Your task to perform on an android device: Go to eBay Image 0: 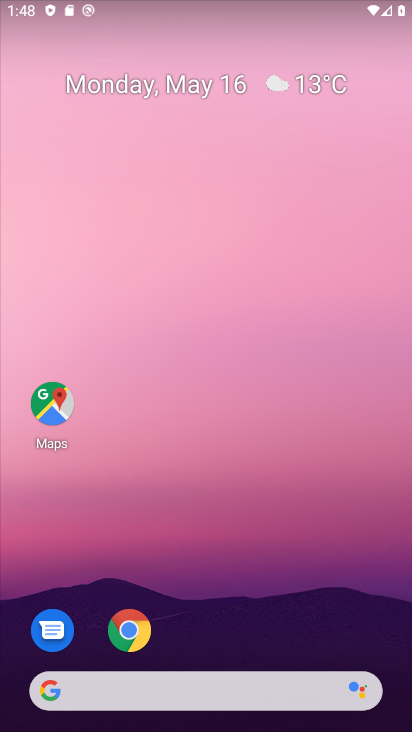
Step 0: click (133, 629)
Your task to perform on an android device: Go to eBay Image 1: 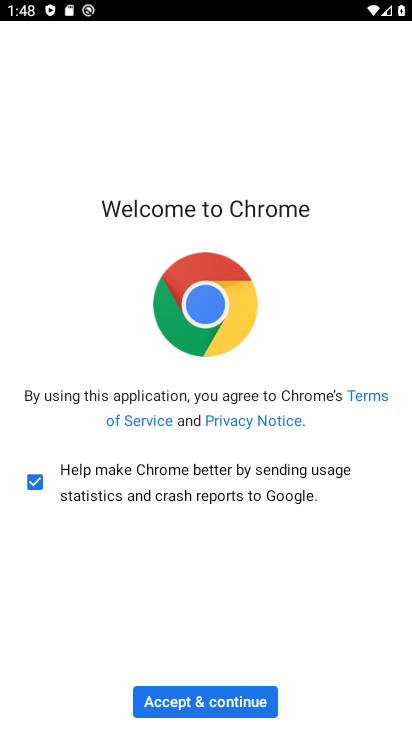
Step 1: click (189, 701)
Your task to perform on an android device: Go to eBay Image 2: 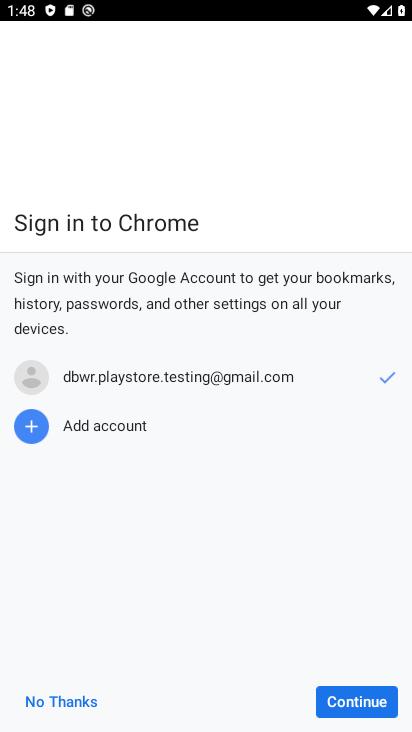
Step 2: click (370, 704)
Your task to perform on an android device: Go to eBay Image 3: 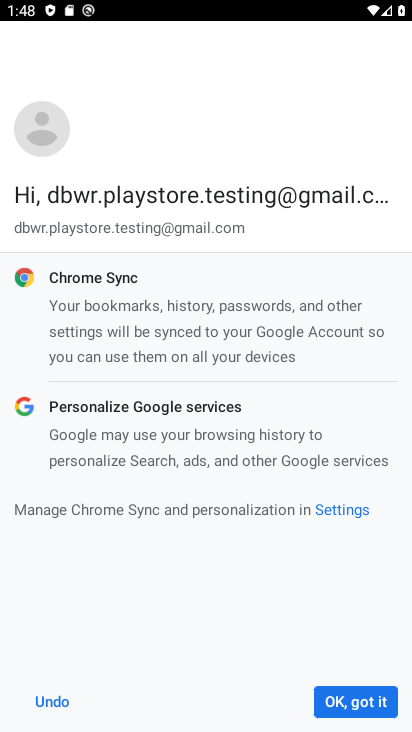
Step 3: click (372, 703)
Your task to perform on an android device: Go to eBay Image 4: 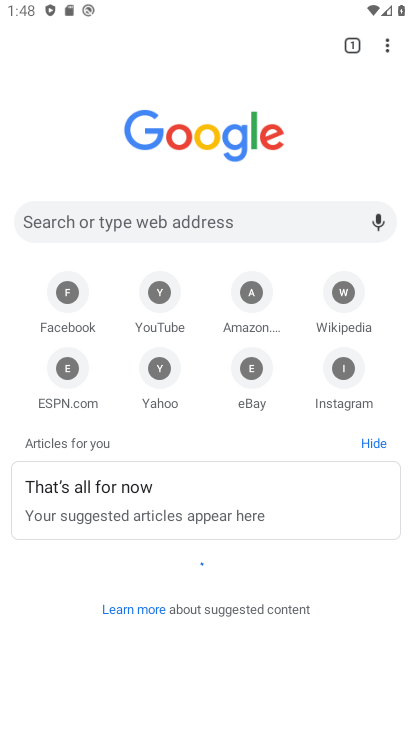
Step 4: click (155, 221)
Your task to perform on an android device: Go to eBay Image 5: 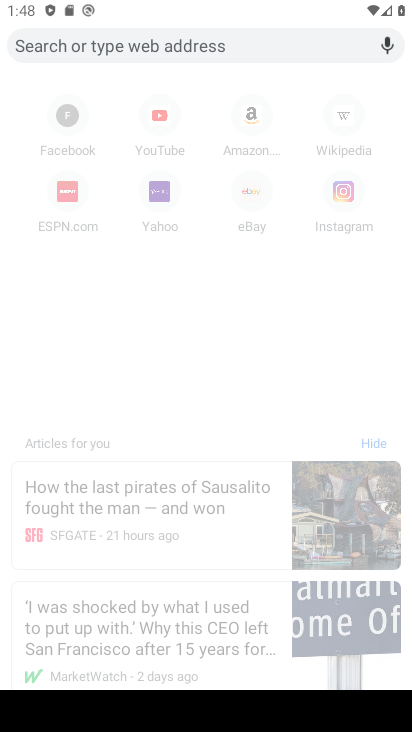
Step 5: type "ebay"
Your task to perform on an android device: Go to eBay Image 6: 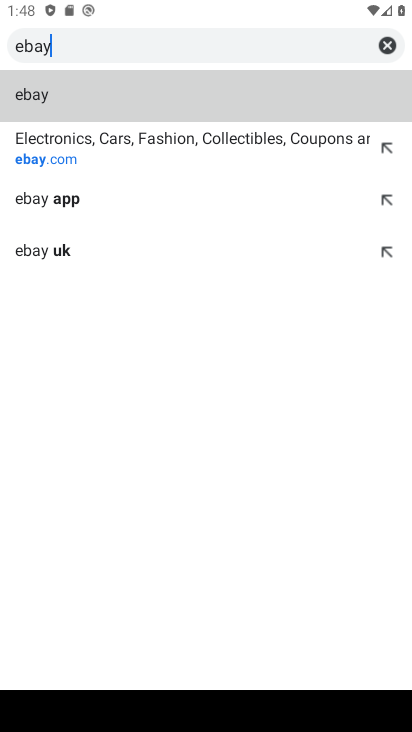
Step 6: click (99, 158)
Your task to perform on an android device: Go to eBay Image 7: 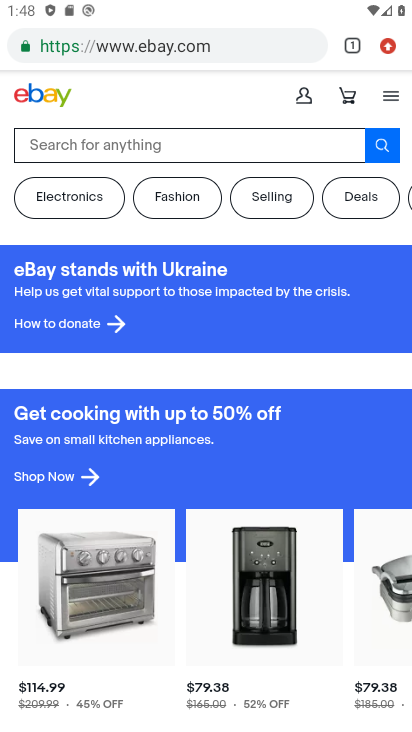
Step 7: task complete